Your task to perform on an android device: Go to Google maps Image 0: 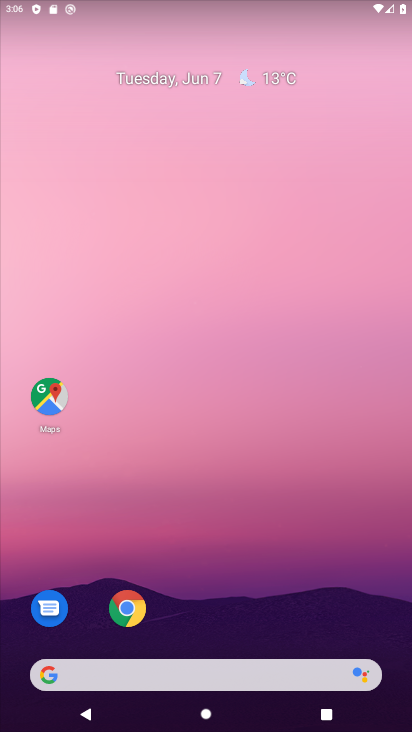
Step 0: click (44, 394)
Your task to perform on an android device: Go to Google maps Image 1: 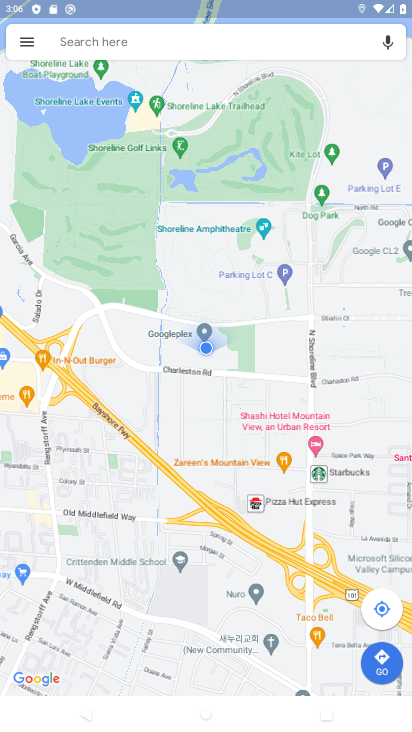
Step 1: task complete